Your task to perform on an android device: Open the stopwatch Image 0: 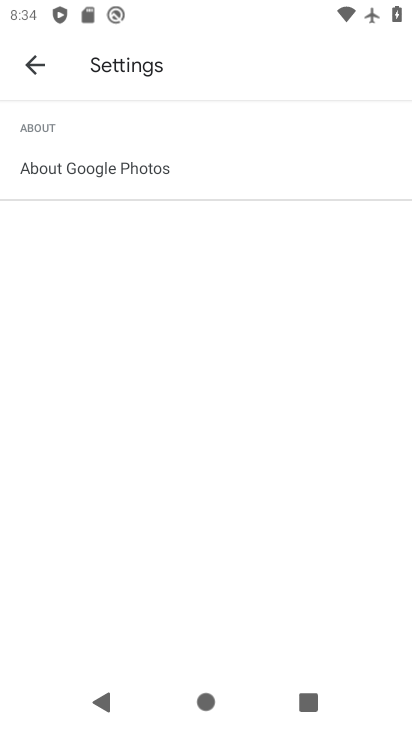
Step 0: press home button
Your task to perform on an android device: Open the stopwatch Image 1: 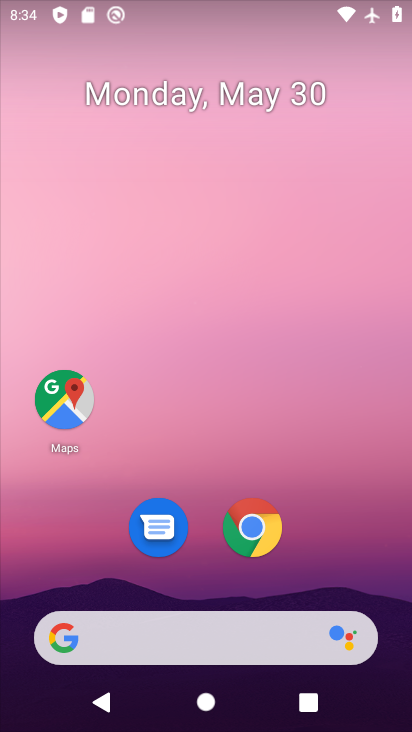
Step 1: drag from (339, 564) to (269, 10)
Your task to perform on an android device: Open the stopwatch Image 2: 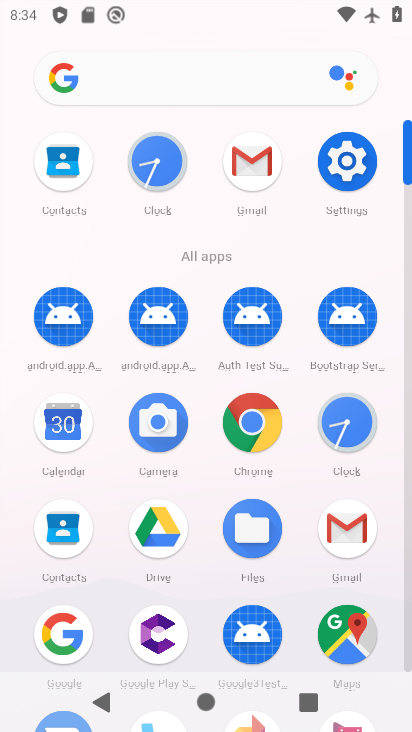
Step 2: click (346, 429)
Your task to perform on an android device: Open the stopwatch Image 3: 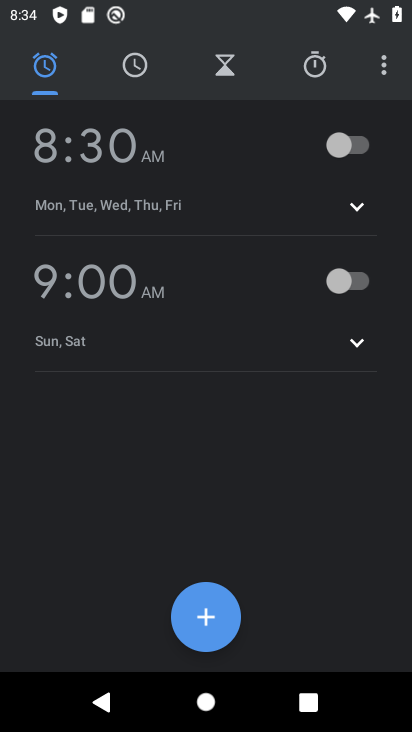
Step 3: click (329, 51)
Your task to perform on an android device: Open the stopwatch Image 4: 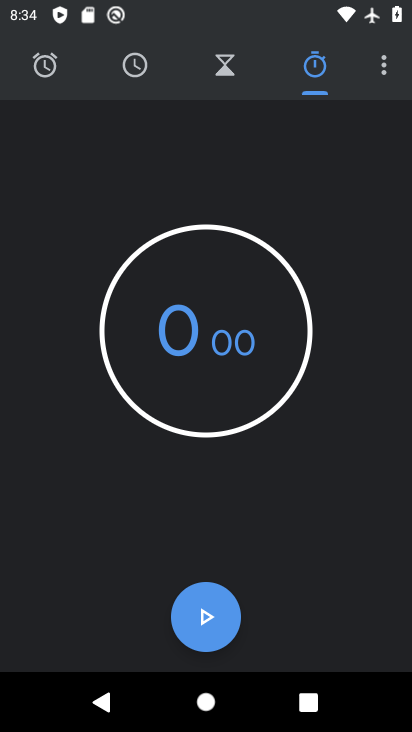
Step 4: task complete